Your task to perform on an android device: turn on airplane mode Image 0: 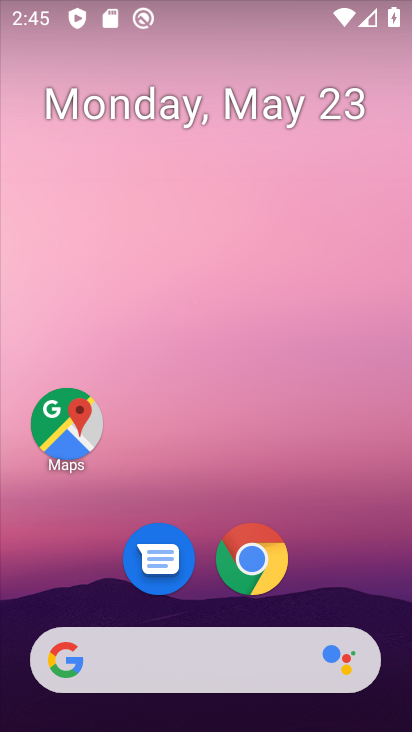
Step 0: drag from (208, 554) to (214, 19)
Your task to perform on an android device: turn on airplane mode Image 1: 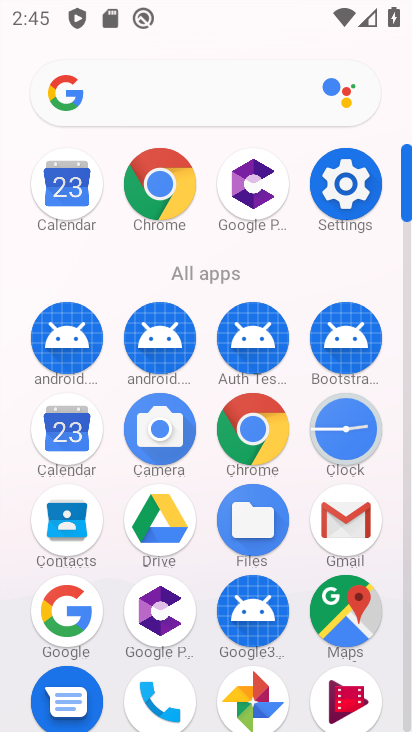
Step 1: click (354, 195)
Your task to perform on an android device: turn on airplane mode Image 2: 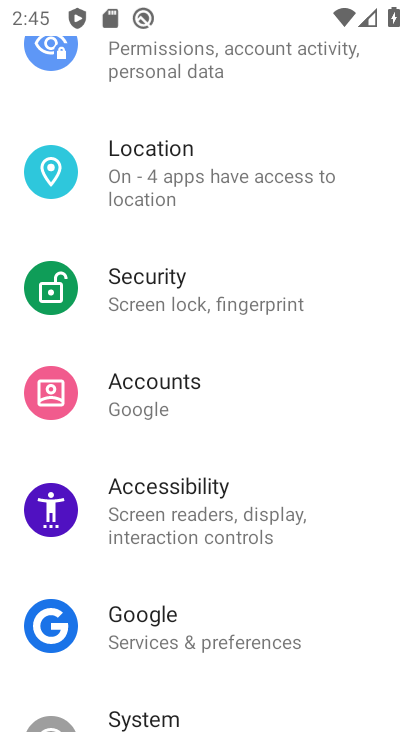
Step 2: drag from (228, 191) to (154, 573)
Your task to perform on an android device: turn on airplane mode Image 3: 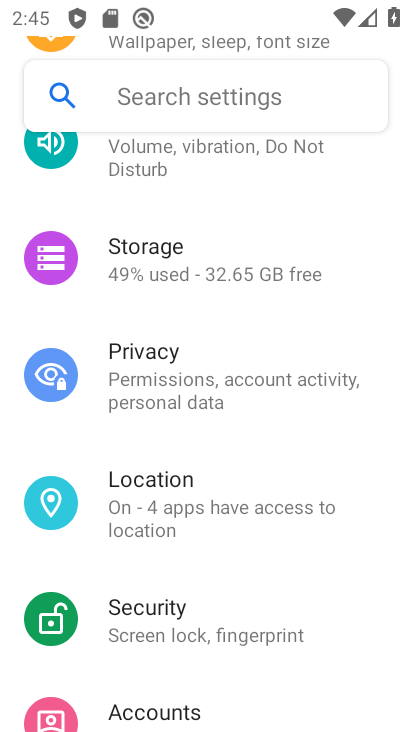
Step 3: drag from (157, 320) to (155, 696)
Your task to perform on an android device: turn on airplane mode Image 4: 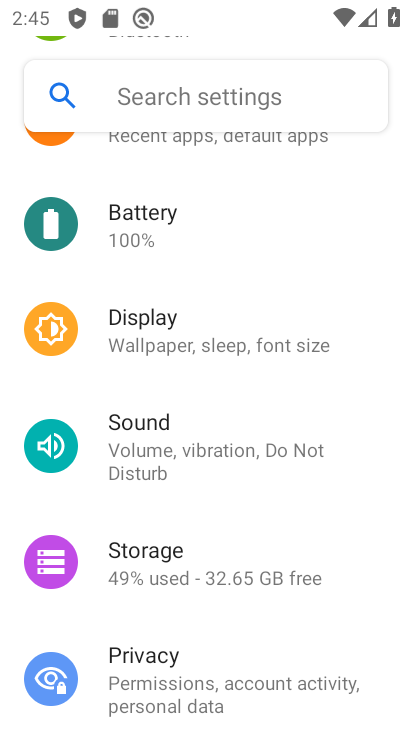
Step 4: drag from (183, 296) to (189, 729)
Your task to perform on an android device: turn on airplane mode Image 5: 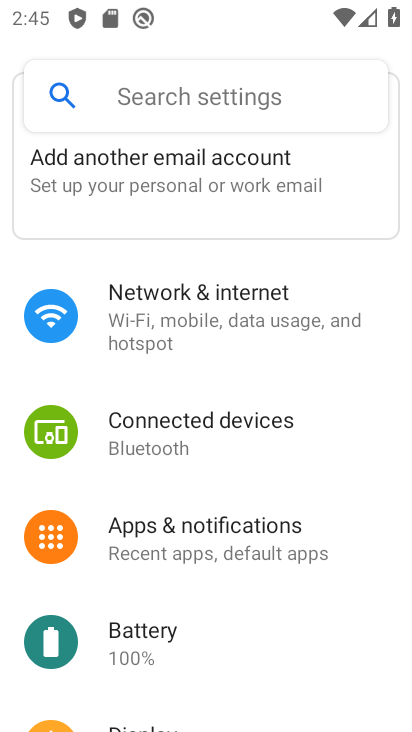
Step 5: click (297, 307)
Your task to perform on an android device: turn on airplane mode Image 6: 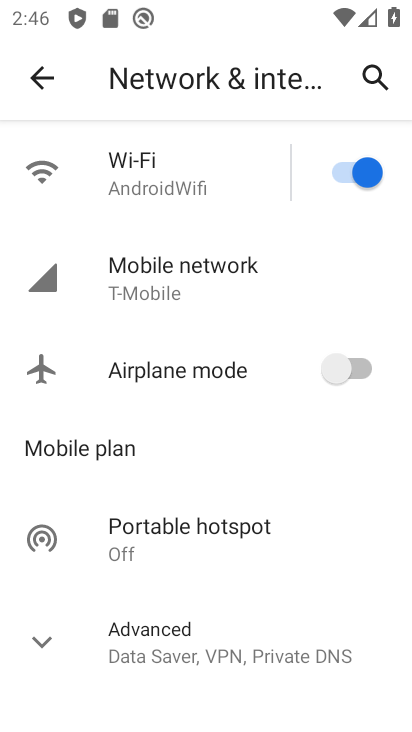
Step 6: click (246, 376)
Your task to perform on an android device: turn on airplane mode Image 7: 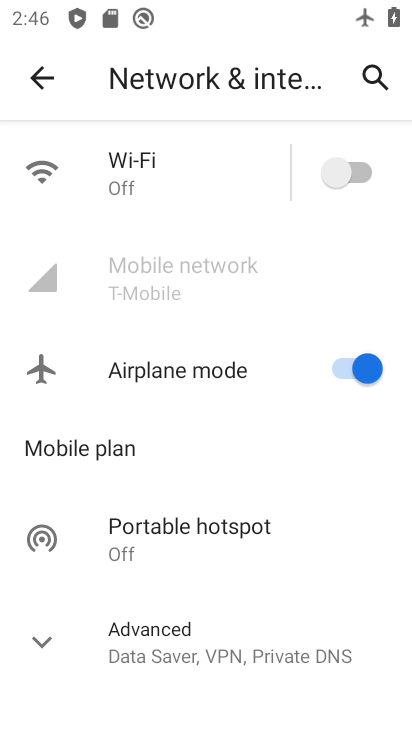
Step 7: task complete